Your task to perform on an android device: add a contact Image 0: 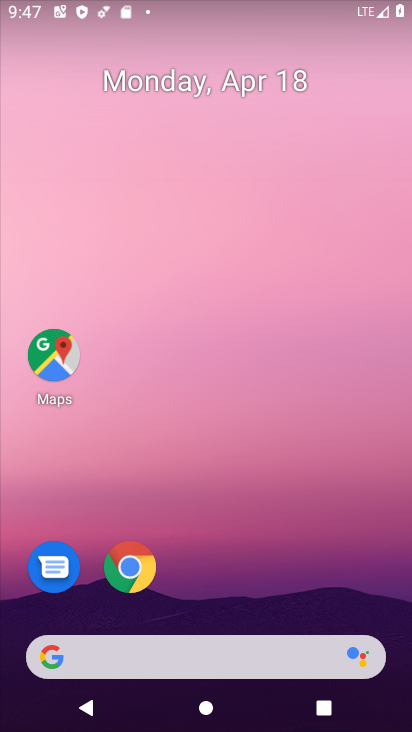
Step 0: drag from (362, 559) to (361, 99)
Your task to perform on an android device: add a contact Image 1: 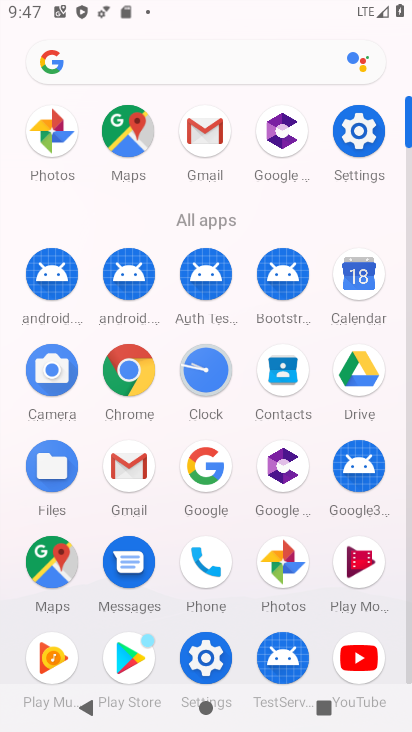
Step 1: drag from (172, 618) to (223, 276)
Your task to perform on an android device: add a contact Image 2: 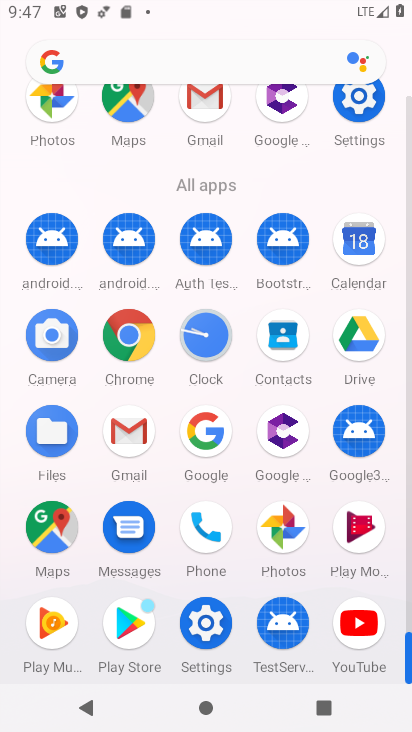
Step 2: click (293, 339)
Your task to perform on an android device: add a contact Image 3: 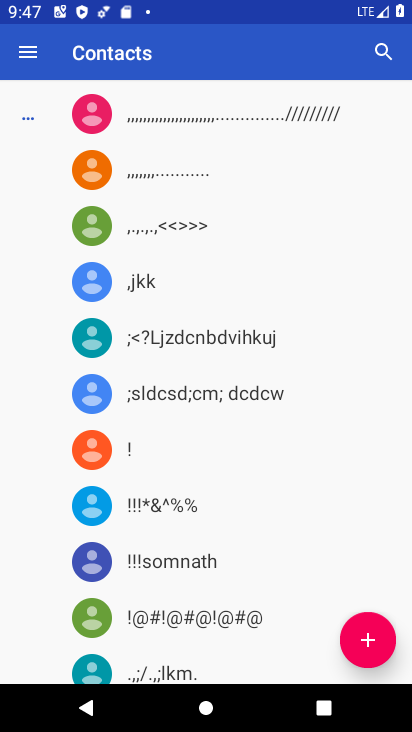
Step 3: click (371, 643)
Your task to perform on an android device: add a contact Image 4: 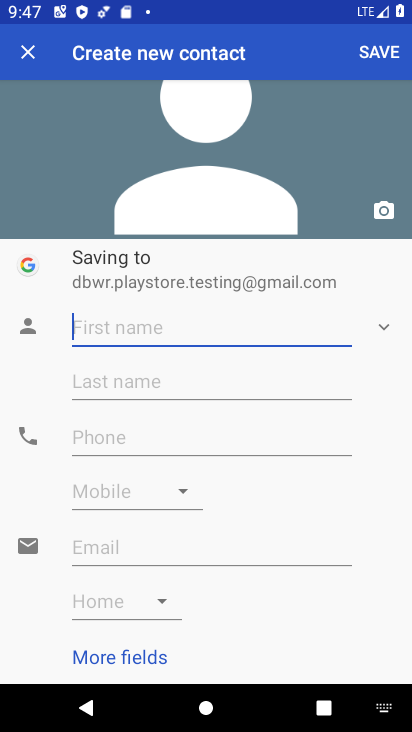
Step 4: type "ranesh"
Your task to perform on an android device: add a contact Image 5: 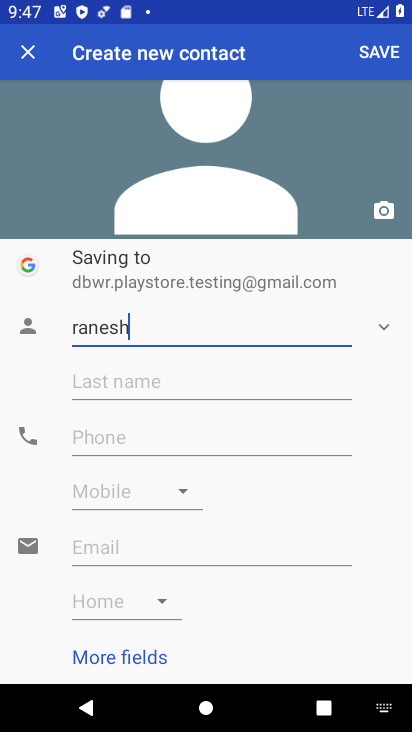
Step 5: click (123, 441)
Your task to perform on an android device: add a contact Image 6: 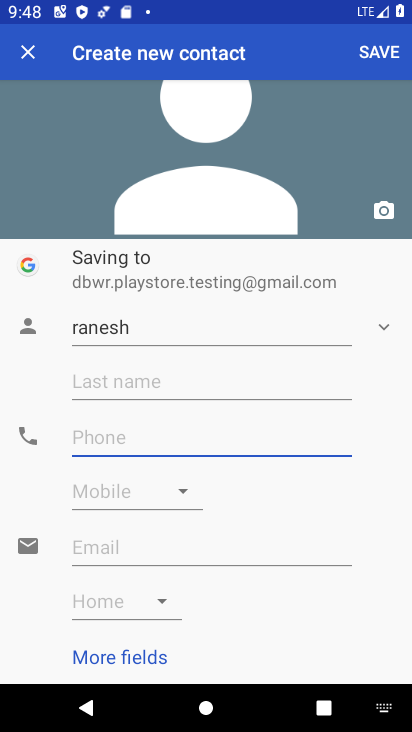
Step 6: type "989877676"
Your task to perform on an android device: add a contact Image 7: 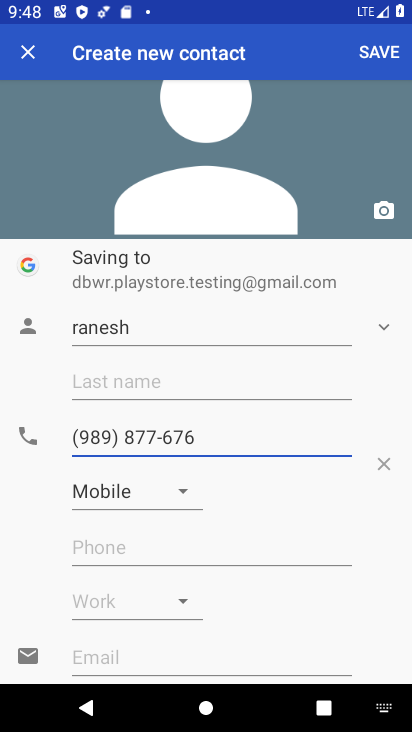
Step 7: click (358, 54)
Your task to perform on an android device: add a contact Image 8: 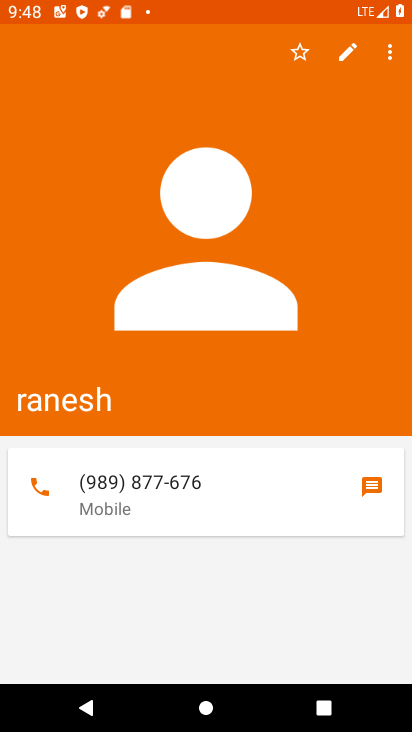
Step 8: task complete